Your task to perform on an android device: toggle notifications settings in the gmail app Image 0: 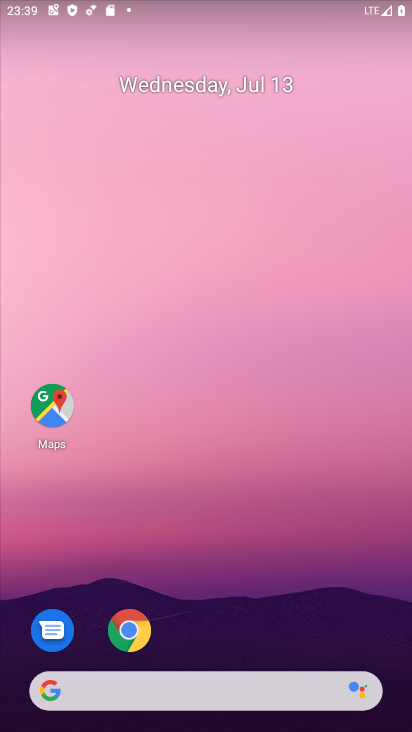
Step 0: click (370, 697)
Your task to perform on an android device: toggle notifications settings in the gmail app Image 1: 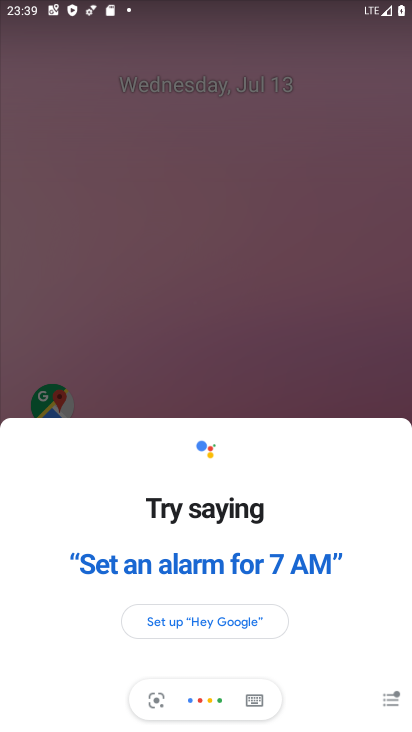
Step 1: drag from (310, 629) to (309, 583)
Your task to perform on an android device: toggle notifications settings in the gmail app Image 2: 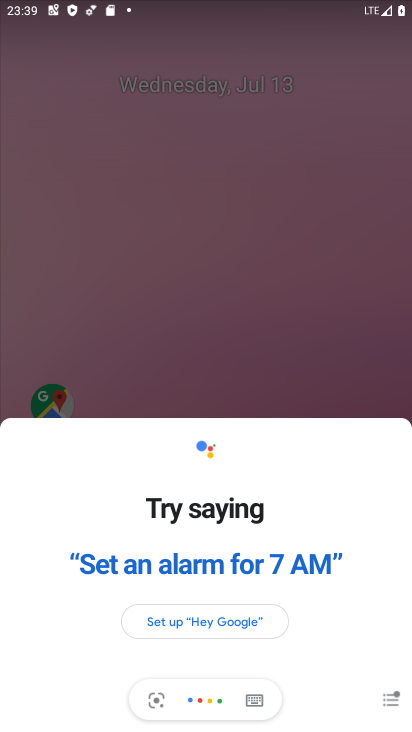
Step 2: click (292, 302)
Your task to perform on an android device: toggle notifications settings in the gmail app Image 3: 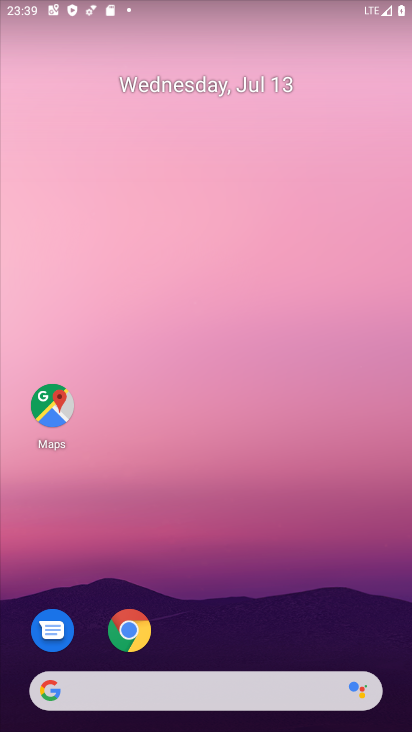
Step 3: drag from (334, 629) to (350, 203)
Your task to perform on an android device: toggle notifications settings in the gmail app Image 4: 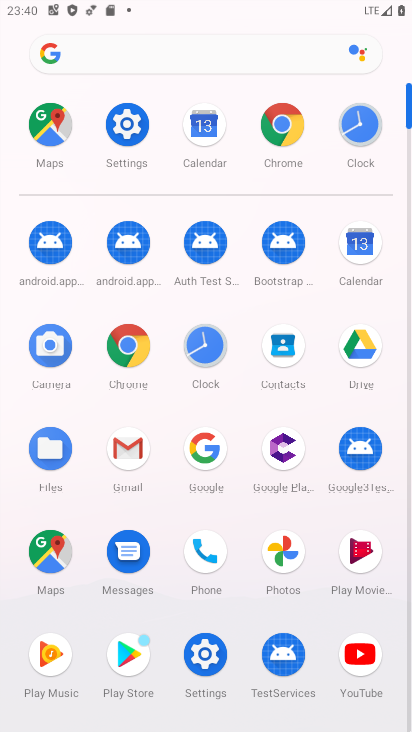
Step 4: click (121, 454)
Your task to perform on an android device: toggle notifications settings in the gmail app Image 5: 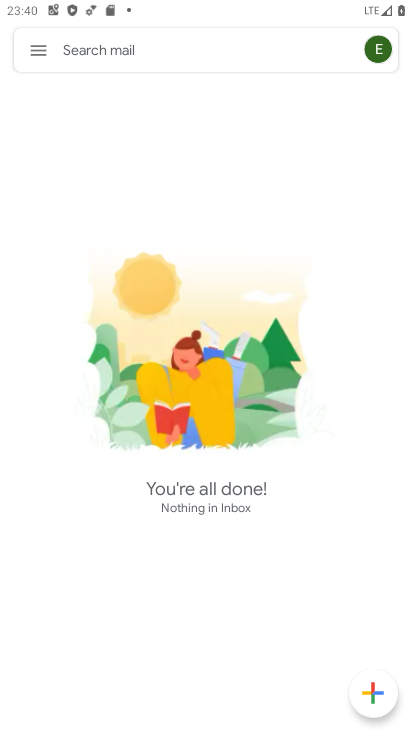
Step 5: click (35, 51)
Your task to perform on an android device: toggle notifications settings in the gmail app Image 6: 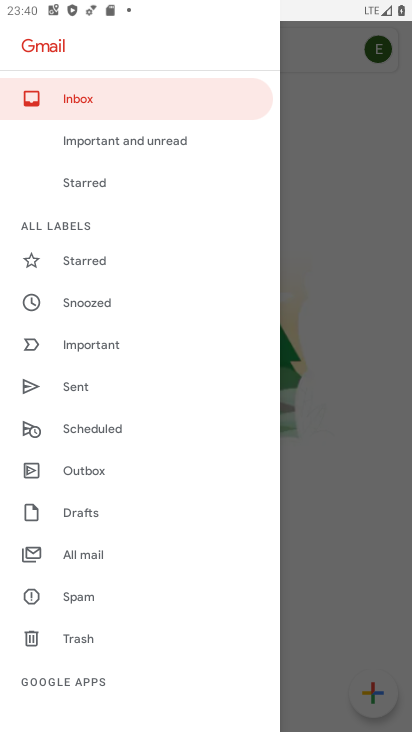
Step 6: drag from (181, 588) to (178, 407)
Your task to perform on an android device: toggle notifications settings in the gmail app Image 7: 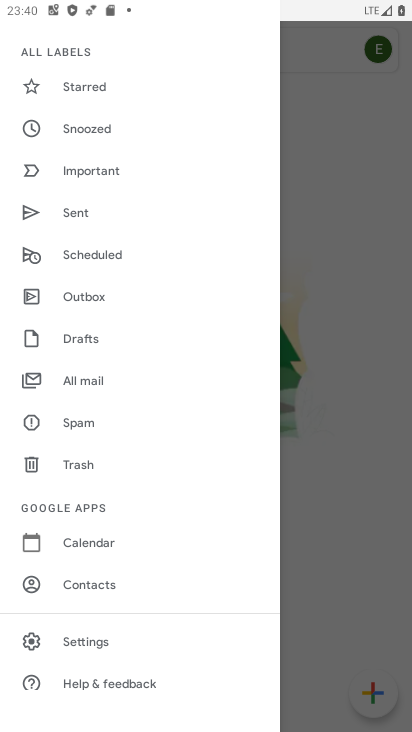
Step 7: drag from (174, 562) to (179, 408)
Your task to perform on an android device: toggle notifications settings in the gmail app Image 8: 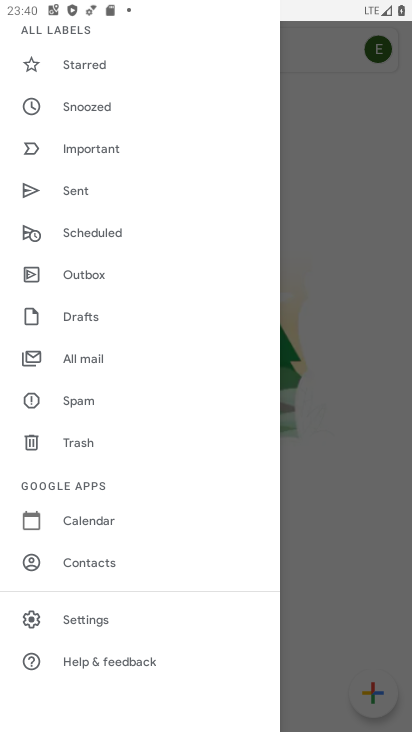
Step 8: click (111, 619)
Your task to perform on an android device: toggle notifications settings in the gmail app Image 9: 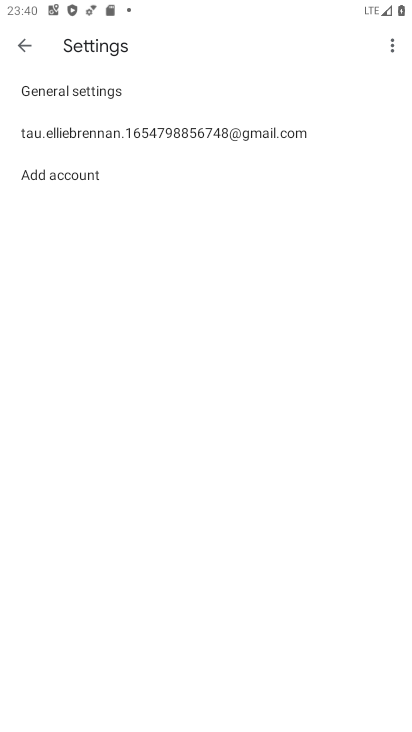
Step 9: click (200, 137)
Your task to perform on an android device: toggle notifications settings in the gmail app Image 10: 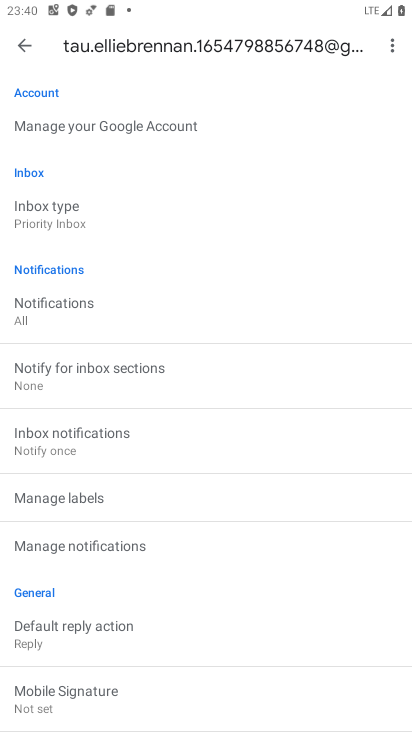
Step 10: drag from (257, 525) to (258, 359)
Your task to perform on an android device: toggle notifications settings in the gmail app Image 11: 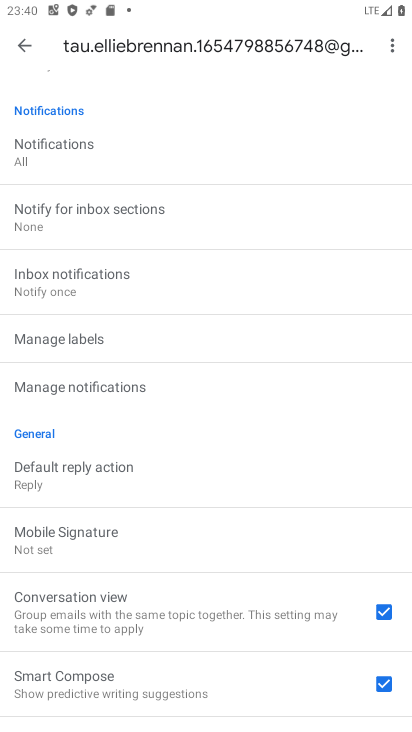
Step 11: drag from (263, 598) to (264, 349)
Your task to perform on an android device: toggle notifications settings in the gmail app Image 12: 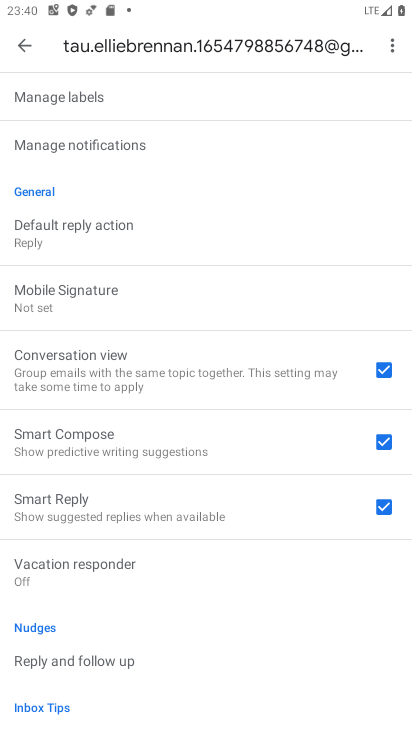
Step 12: drag from (288, 590) to (287, 382)
Your task to perform on an android device: toggle notifications settings in the gmail app Image 13: 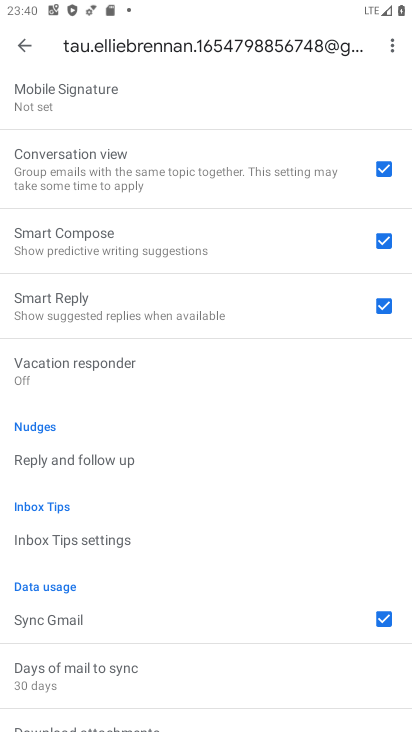
Step 13: drag from (272, 612) to (264, 414)
Your task to perform on an android device: toggle notifications settings in the gmail app Image 14: 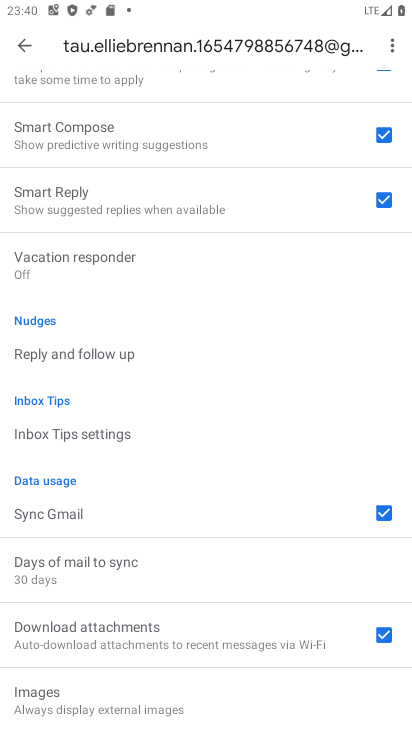
Step 14: drag from (240, 295) to (251, 450)
Your task to perform on an android device: toggle notifications settings in the gmail app Image 15: 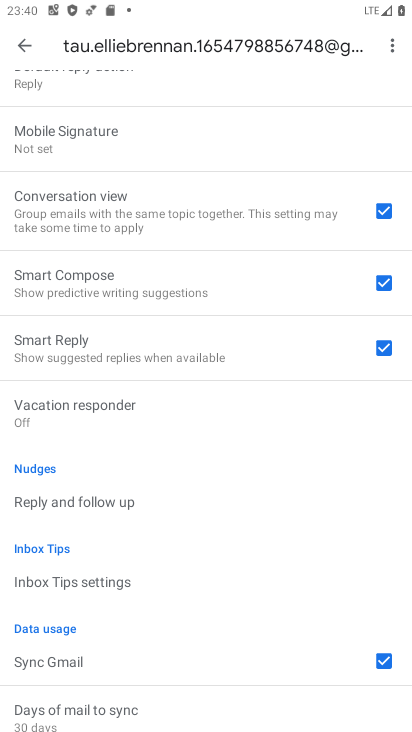
Step 15: drag from (244, 354) to (253, 521)
Your task to perform on an android device: toggle notifications settings in the gmail app Image 16: 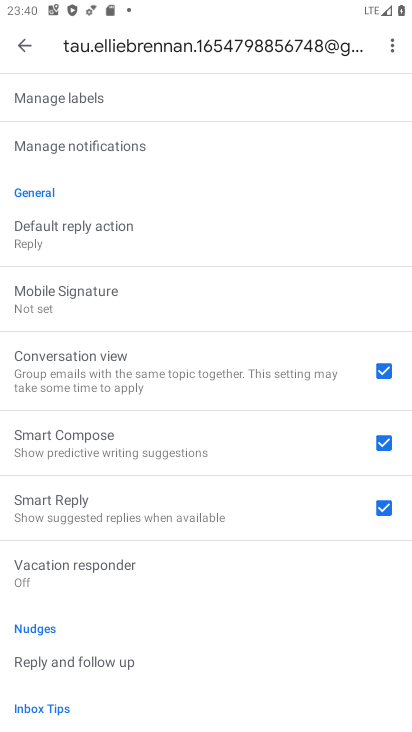
Step 16: drag from (241, 280) to (247, 406)
Your task to perform on an android device: toggle notifications settings in the gmail app Image 17: 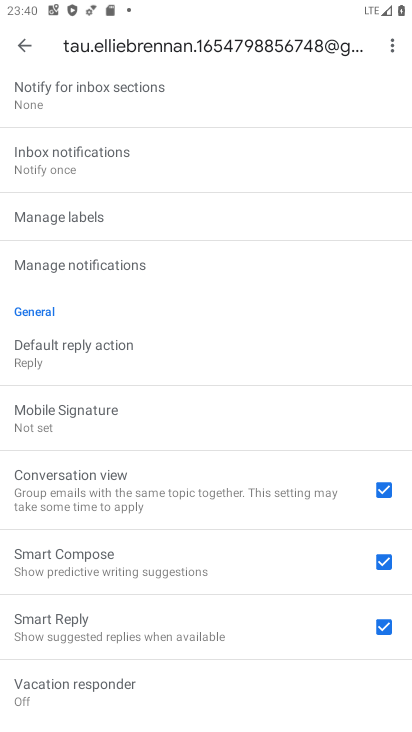
Step 17: click (184, 273)
Your task to perform on an android device: toggle notifications settings in the gmail app Image 18: 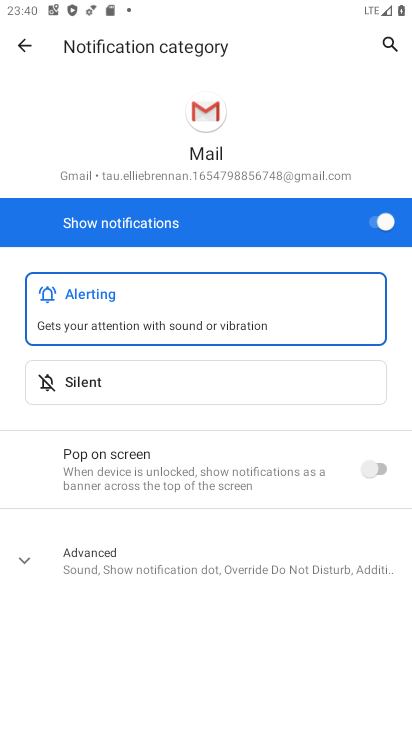
Step 18: click (383, 225)
Your task to perform on an android device: toggle notifications settings in the gmail app Image 19: 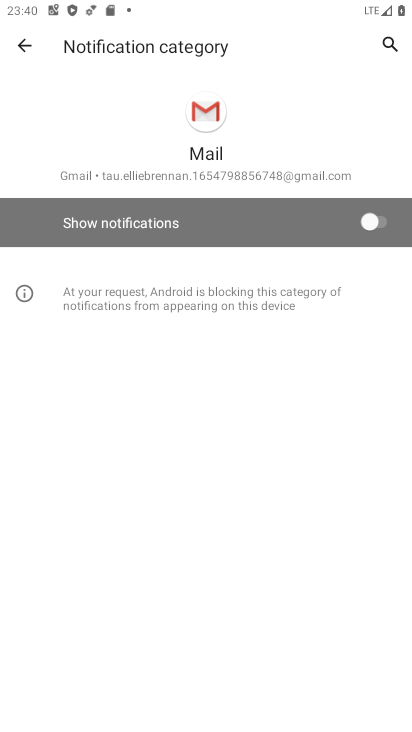
Step 19: task complete